Your task to perform on an android device: Toggle the flashlight Image 0: 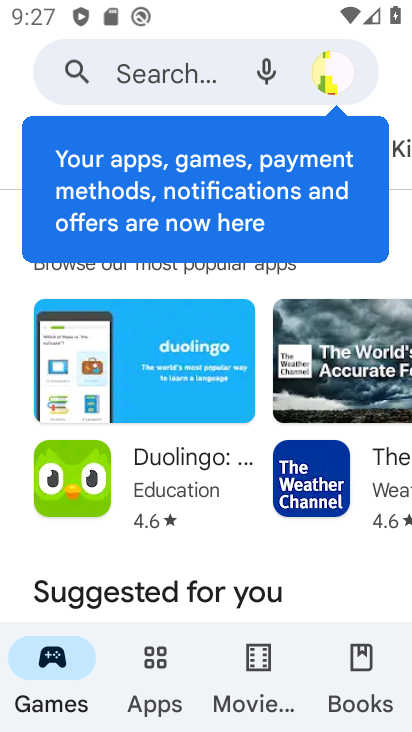
Step 0: press home button
Your task to perform on an android device: Toggle the flashlight Image 1: 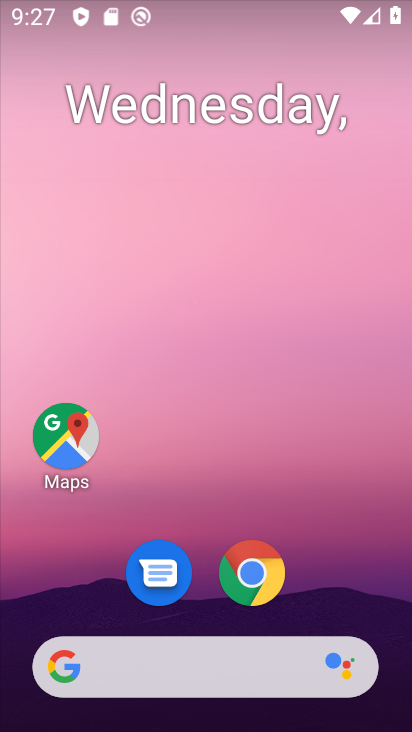
Step 1: drag from (306, 553) to (294, 288)
Your task to perform on an android device: Toggle the flashlight Image 2: 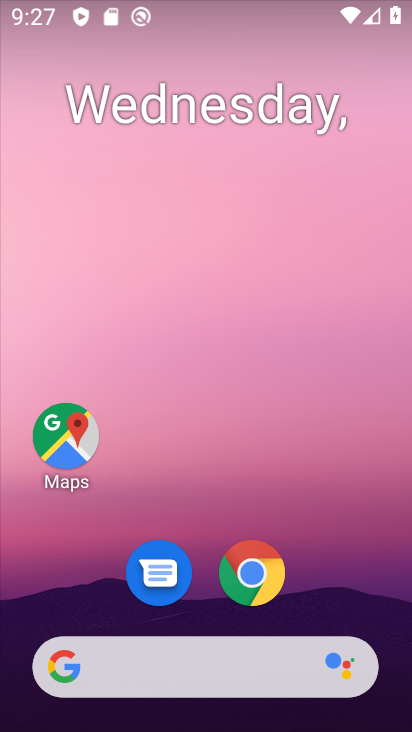
Step 2: drag from (324, 570) to (321, 173)
Your task to perform on an android device: Toggle the flashlight Image 3: 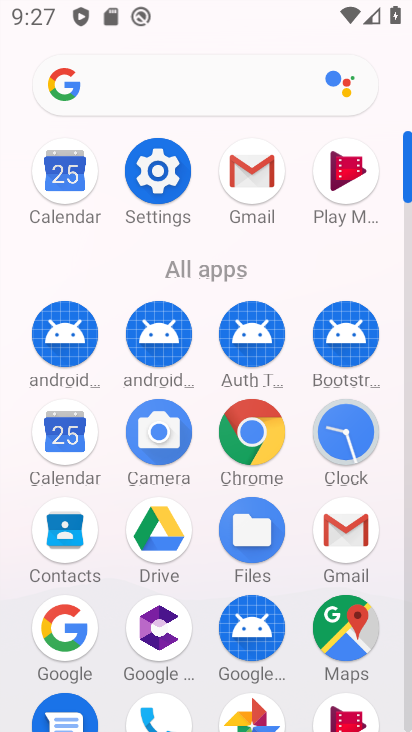
Step 3: click (152, 159)
Your task to perform on an android device: Toggle the flashlight Image 4: 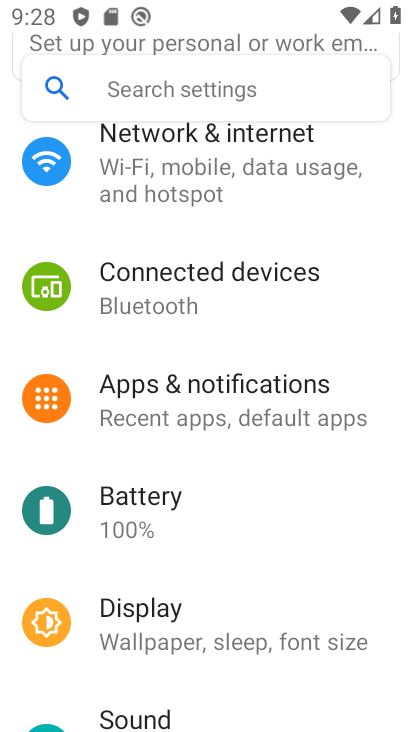
Step 4: task complete